Your task to perform on an android device: turn smart compose on in the gmail app Image 0: 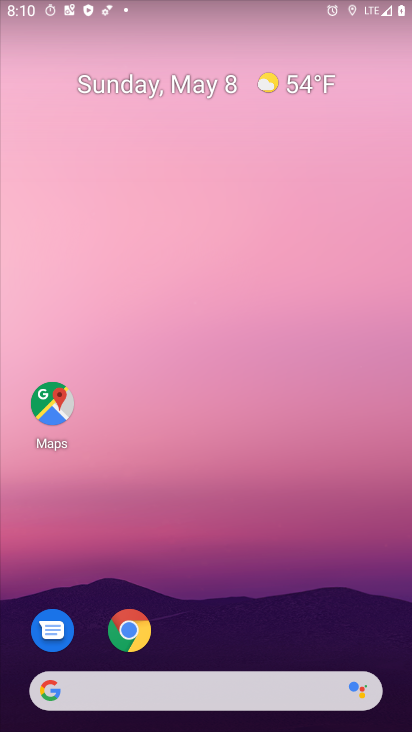
Step 0: drag from (218, 655) to (162, 18)
Your task to perform on an android device: turn smart compose on in the gmail app Image 1: 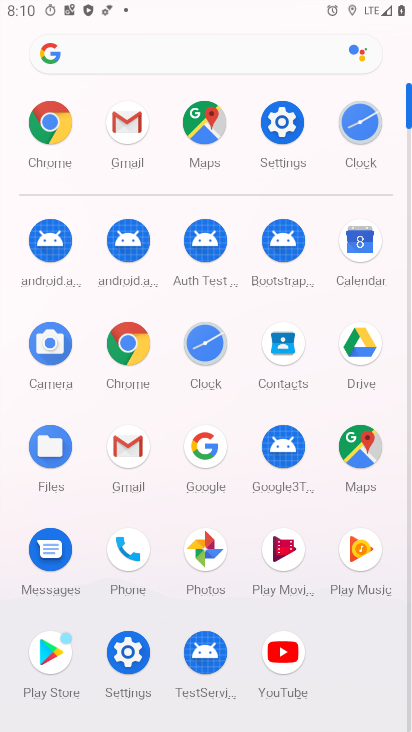
Step 1: click (132, 442)
Your task to perform on an android device: turn smart compose on in the gmail app Image 2: 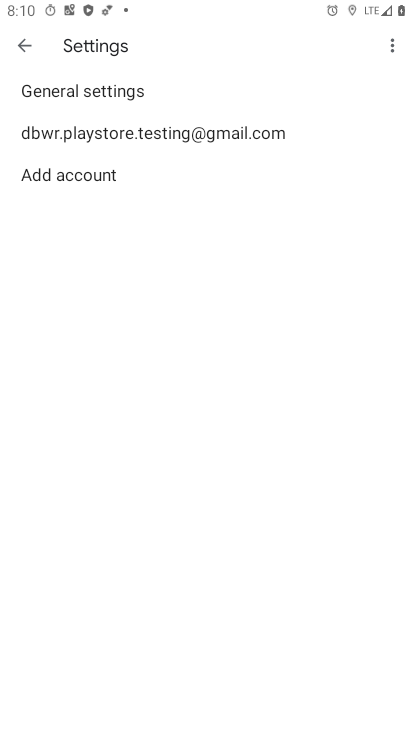
Step 2: click (25, 61)
Your task to perform on an android device: turn smart compose on in the gmail app Image 3: 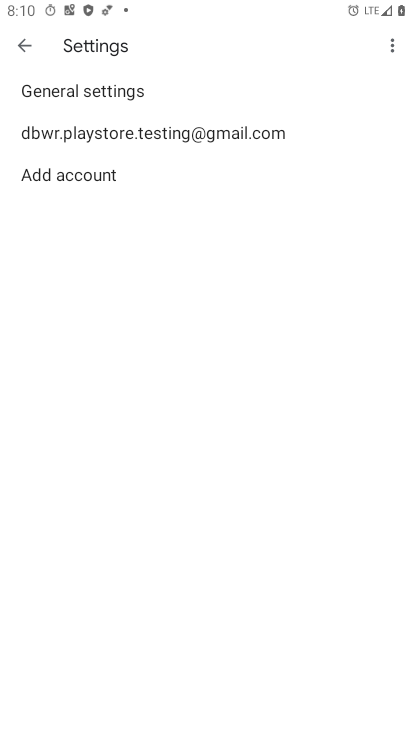
Step 3: click (68, 128)
Your task to perform on an android device: turn smart compose on in the gmail app Image 4: 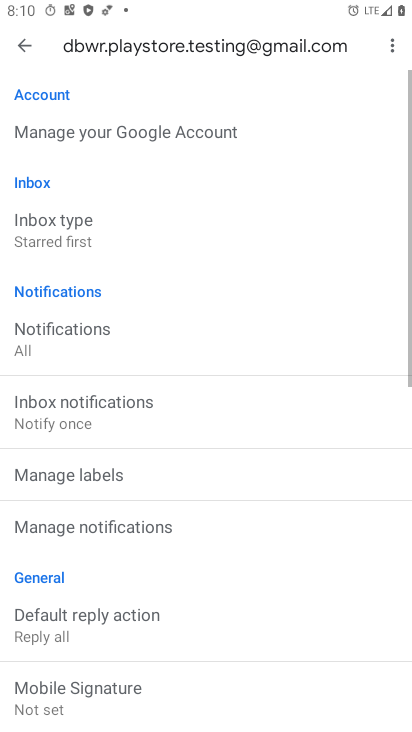
Step 4: task complete